Your task to perform on an android device: Open Chrome and go to settings Image 0: 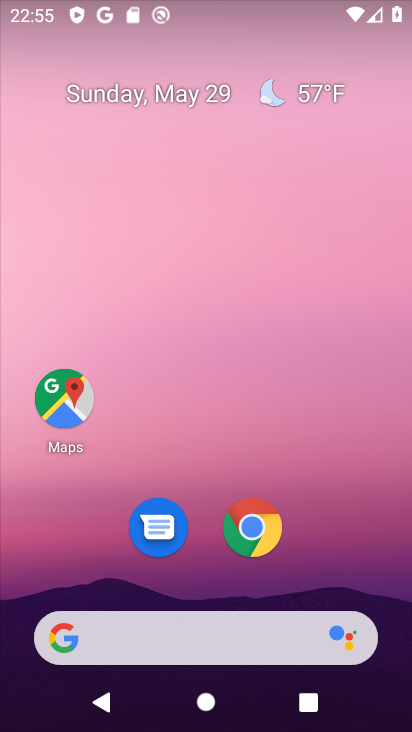
Step 0: click (253, 528)
Your task to perform on an android device: Open Chrome and go to settings Image 1: 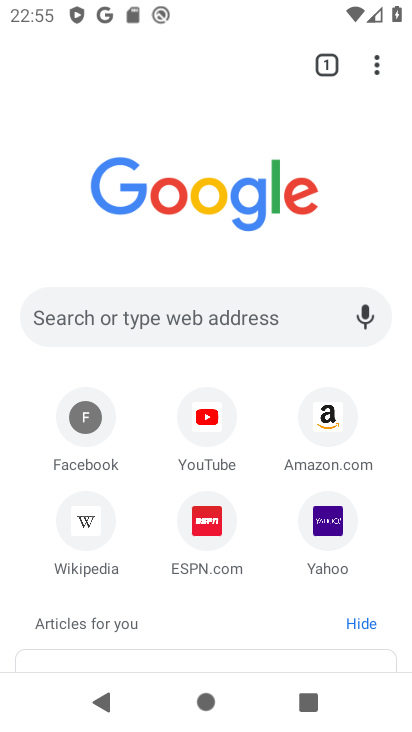
Step 1: click (378, 63)
Your task to perform on an android device: Open Chrome and go to settings Image 2: 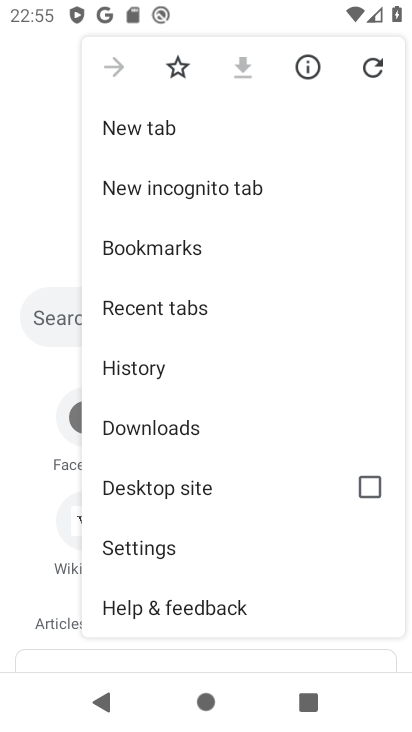
Step 2: click (152, 544)
Your task to perform on an android device: Open Chrome and go to settings Image 3: 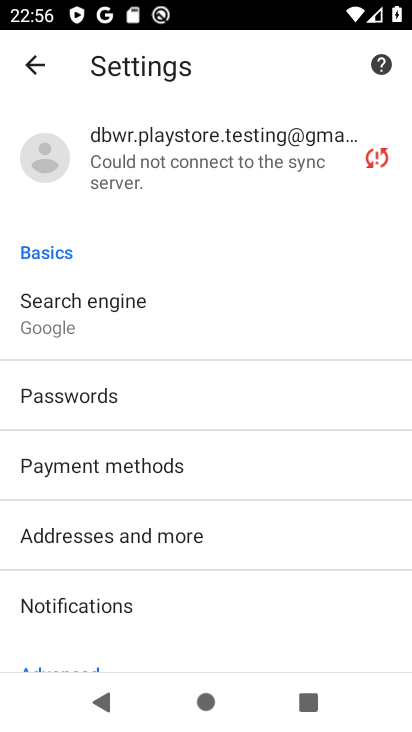
Step 3: task complete